Your task to perform on an android device: What time is it in Paris? Image 0: 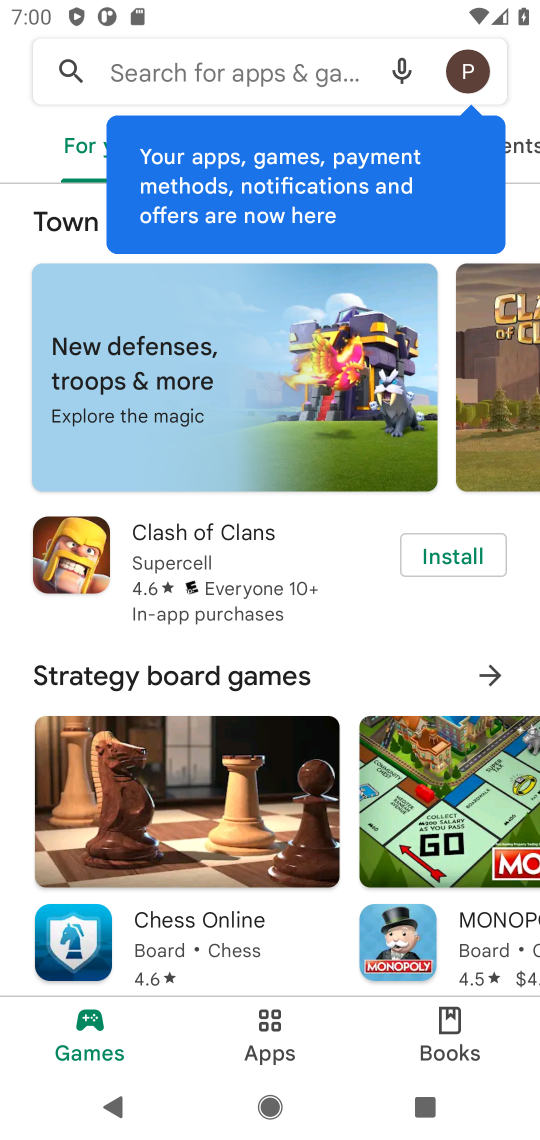
Step 0: press home button
Your task to perform on an android device: What time is it in Paris? Image 1: 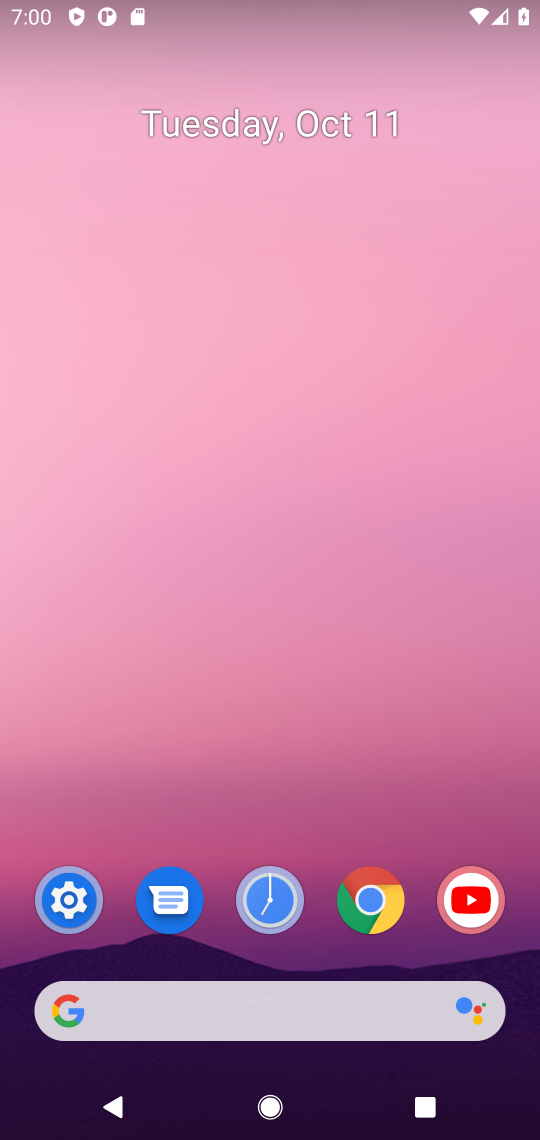
Step 1: click (382, 924)
Your task to perform on an android device: What time is it in Paris? Image 2: 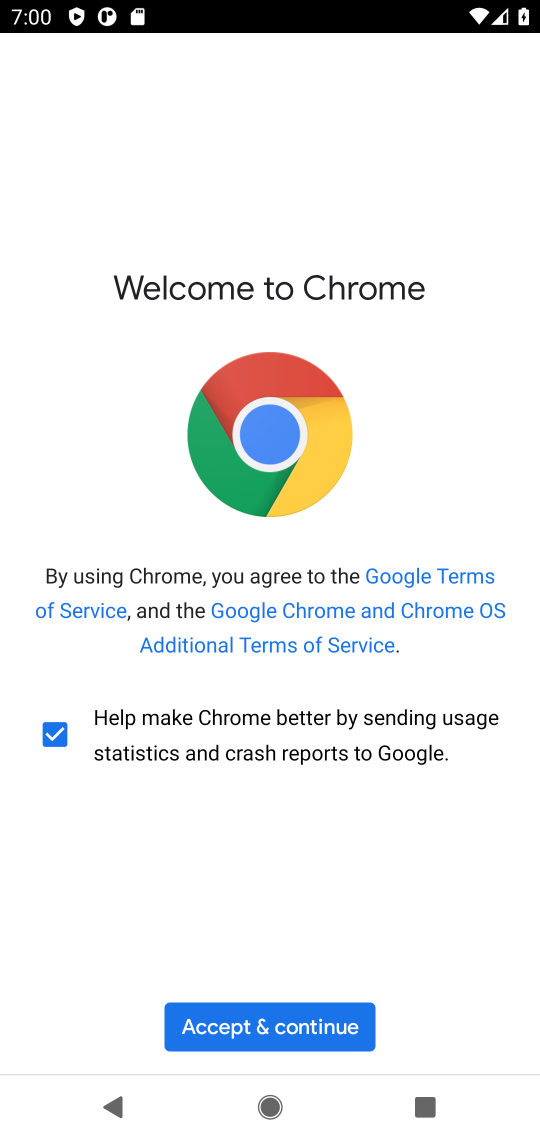
Step 2: click (280, 1014)
Your task to perform on an android device: What time is it in Paris? Image 3: 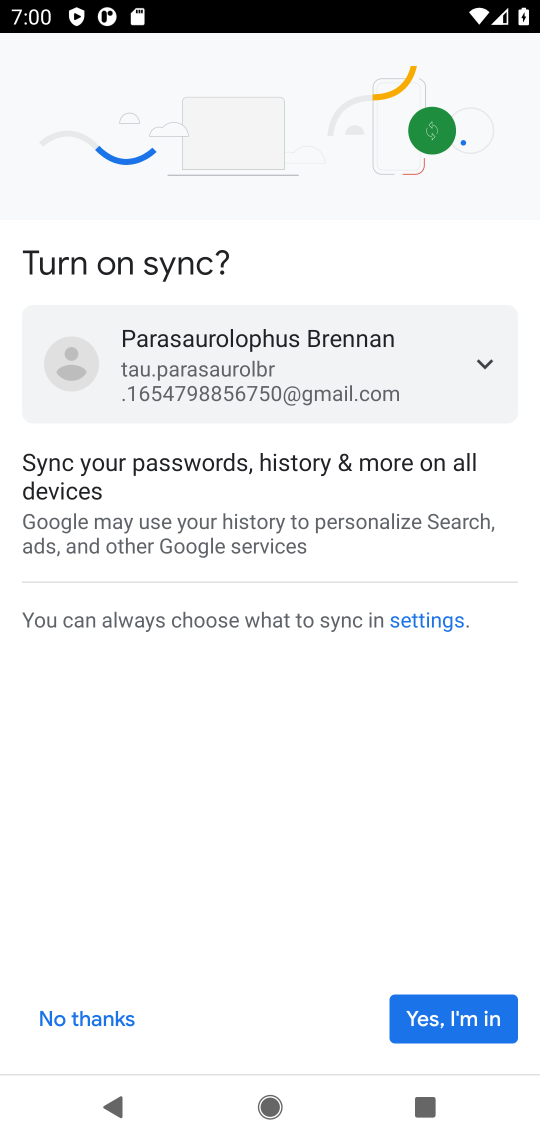
Step 3: click (444, 1011)
Your task to perform on an android device: What time is it in Paris? Image 4: 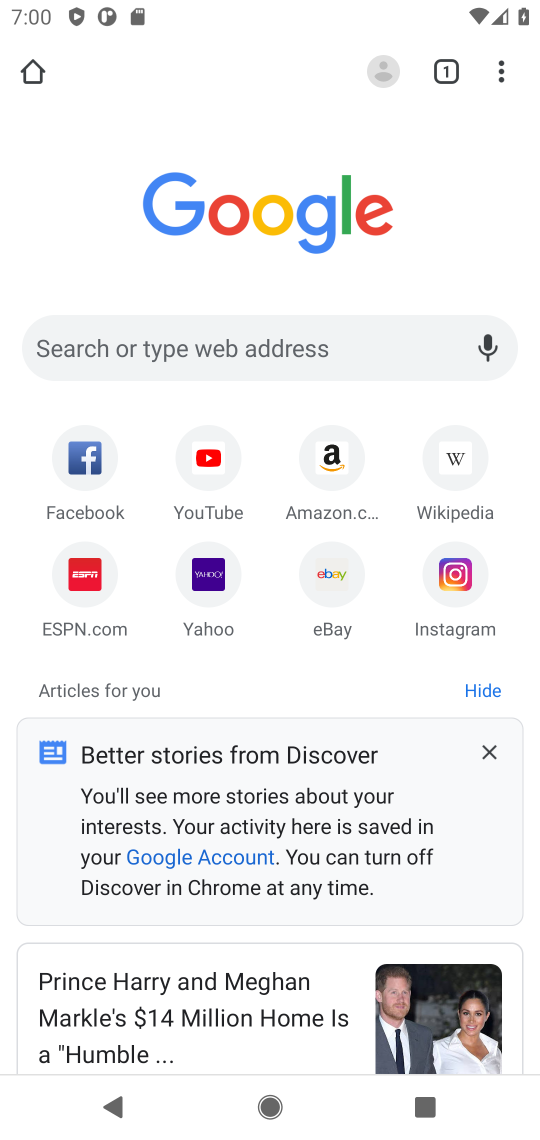
Step 4: click (263, 350)
Your task to perform on an android device: What time is it in Paris? Image 5: 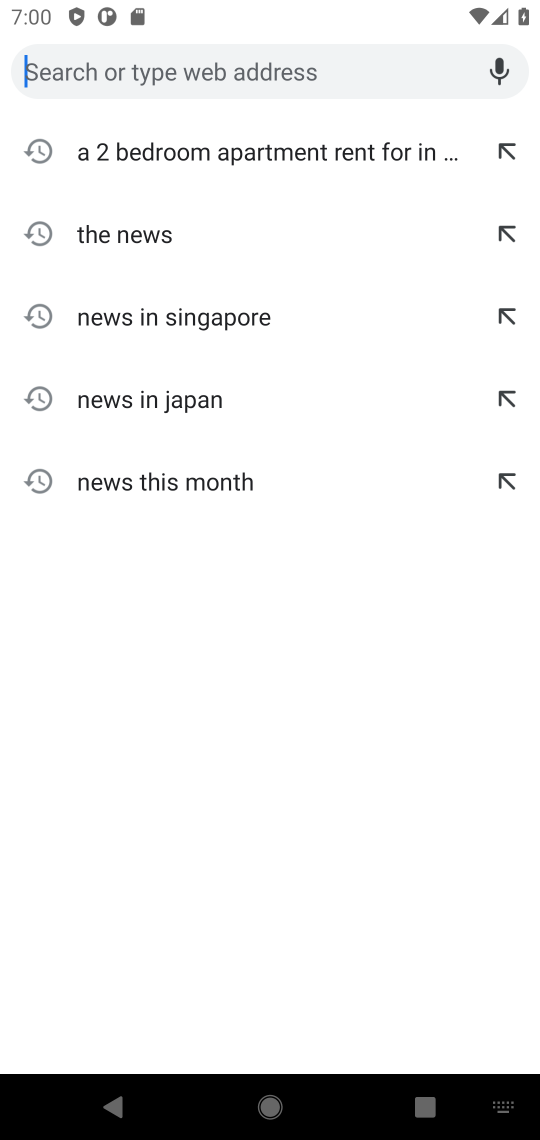
Step 5: type "What time is it in Paris"
Your task to perform on an android device: What time is it in Paris? Image 6: 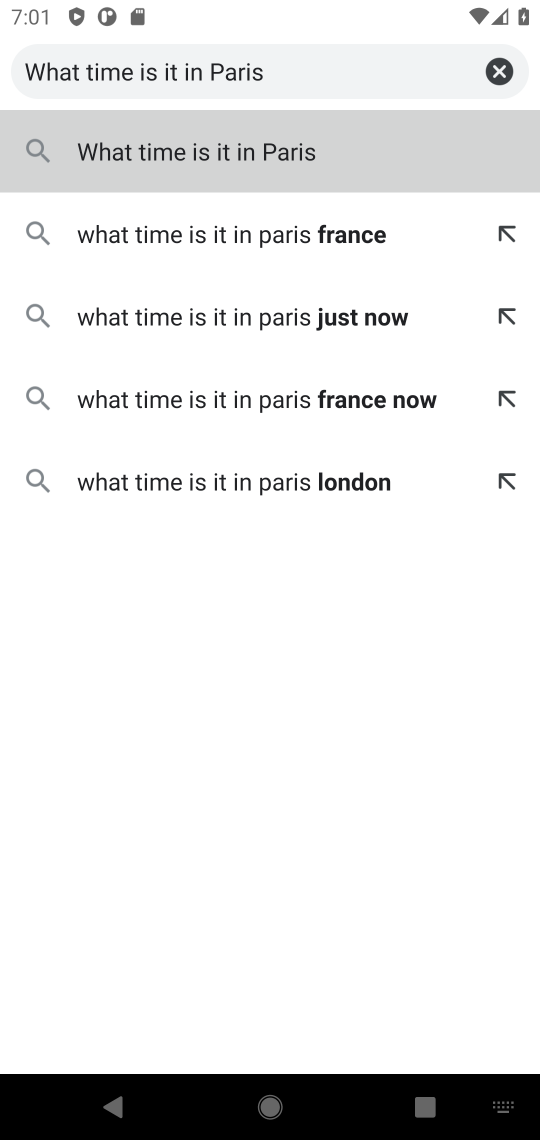
Step 6: click (350, 171)
Your task to perform on an android device: What time is it in Paris? Image 7: 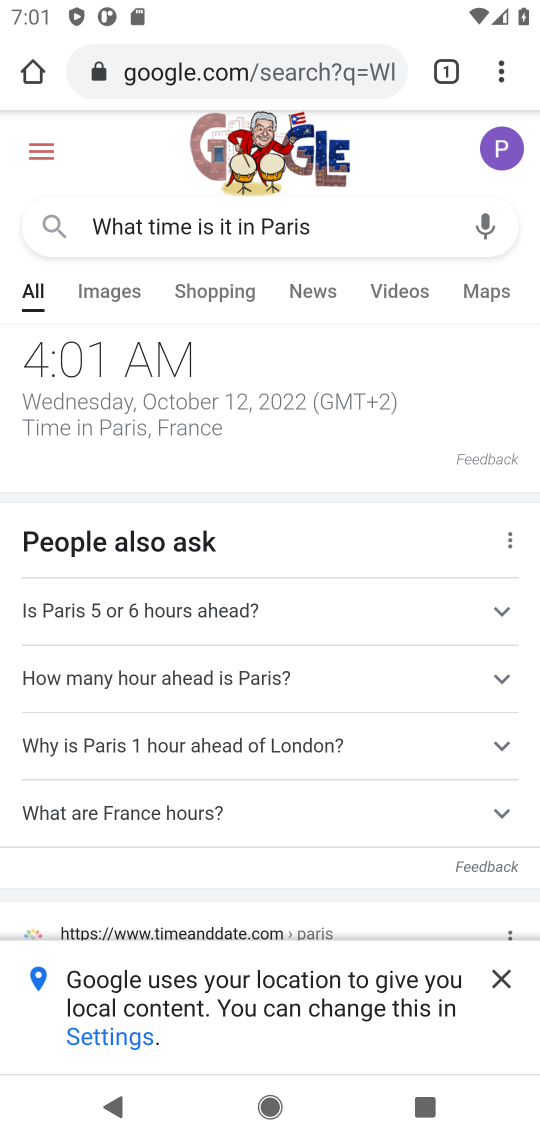
Step 7: task complete